Your task to perform on an android device: turn off improve location accuracy Image 0: 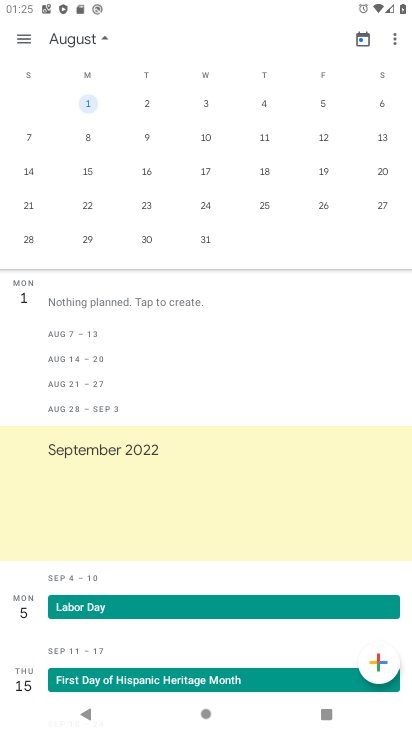
Step 0: press home button
Your task to perform on an android device: turn off improve location accuracy Image 1: 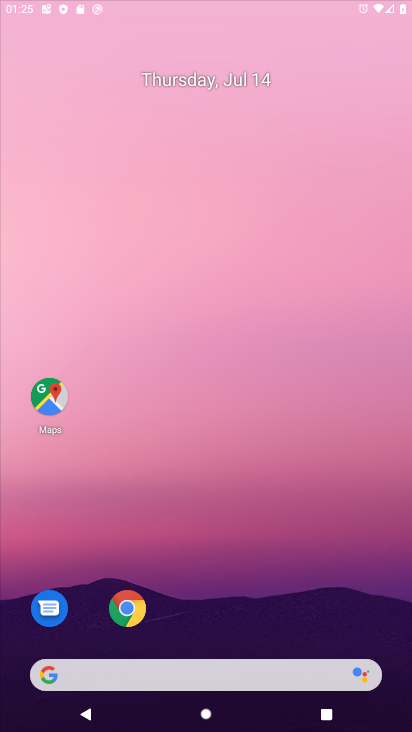
Step 1: drag from (312, 598) to (245, 39)
Your task to perform on an android device: turn off improve location accuracy Image 2: 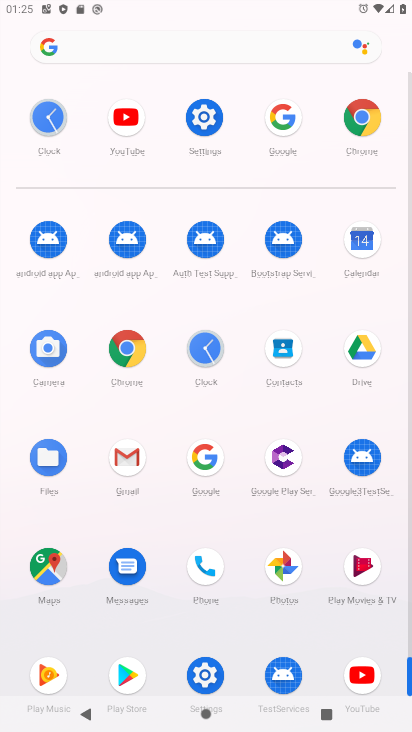
Step 2: click (211, 133)
Your task to perform on an android device: turn off improve location accuracy Image 3: 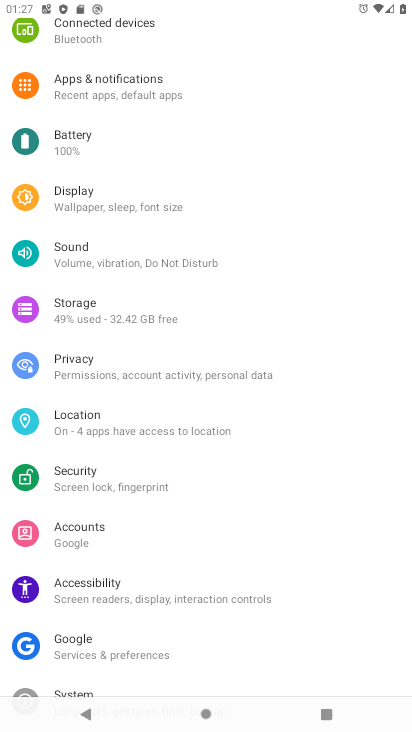
Step 3: click (75, 430)
Your task to perform on an android device: turn off improve location accuracy Image 4: 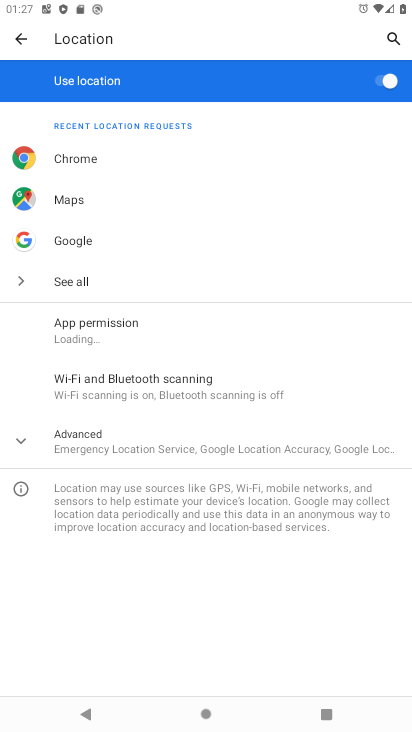
Step 4: click (75, 426)
Your task to perform on an android device: turn off improve location accuracy Image 5: 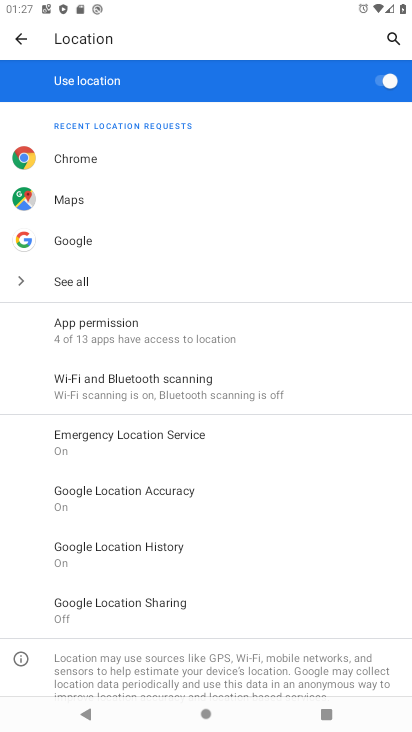
Step 5: click (75, 481)
Your task to perform on an android device: turn off improve location accuracy Image 6: 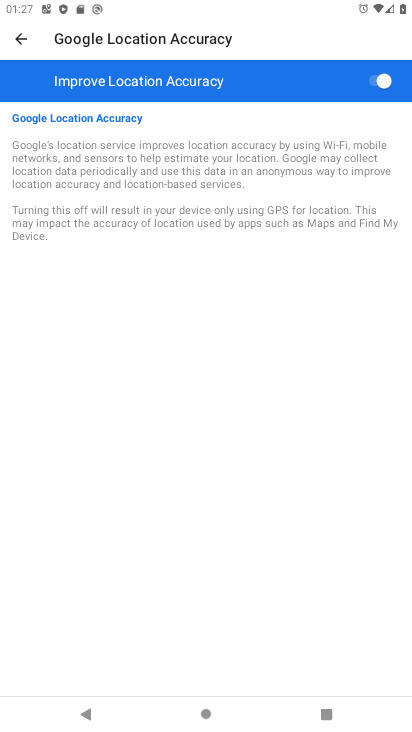
Step 6: click (387, 86)
Your task to perform on an android device: turn off improve location accuracy Image 7: 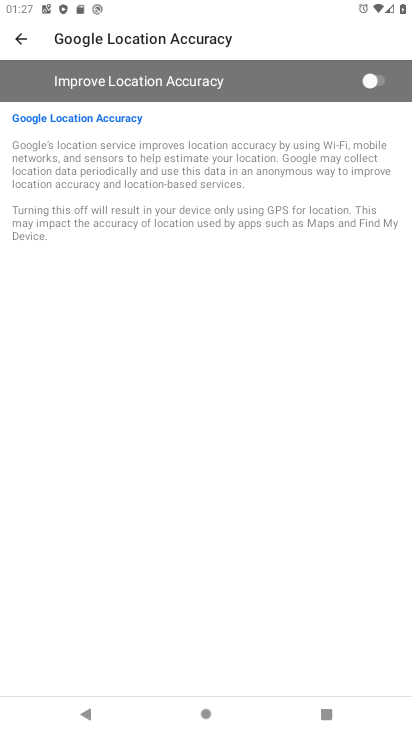
Step 7: task complete